Your task to perform on an android device: empty trash in google photos Image 0: 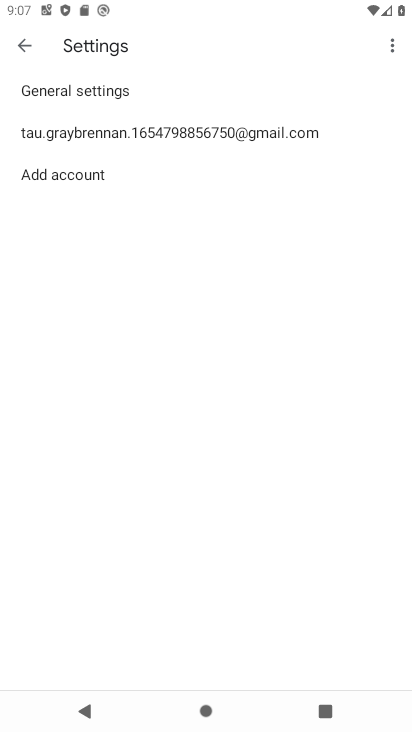
Step 0: task impossible